Your task to perform on an android device: stop showing notifications on the lock screen Image 0: 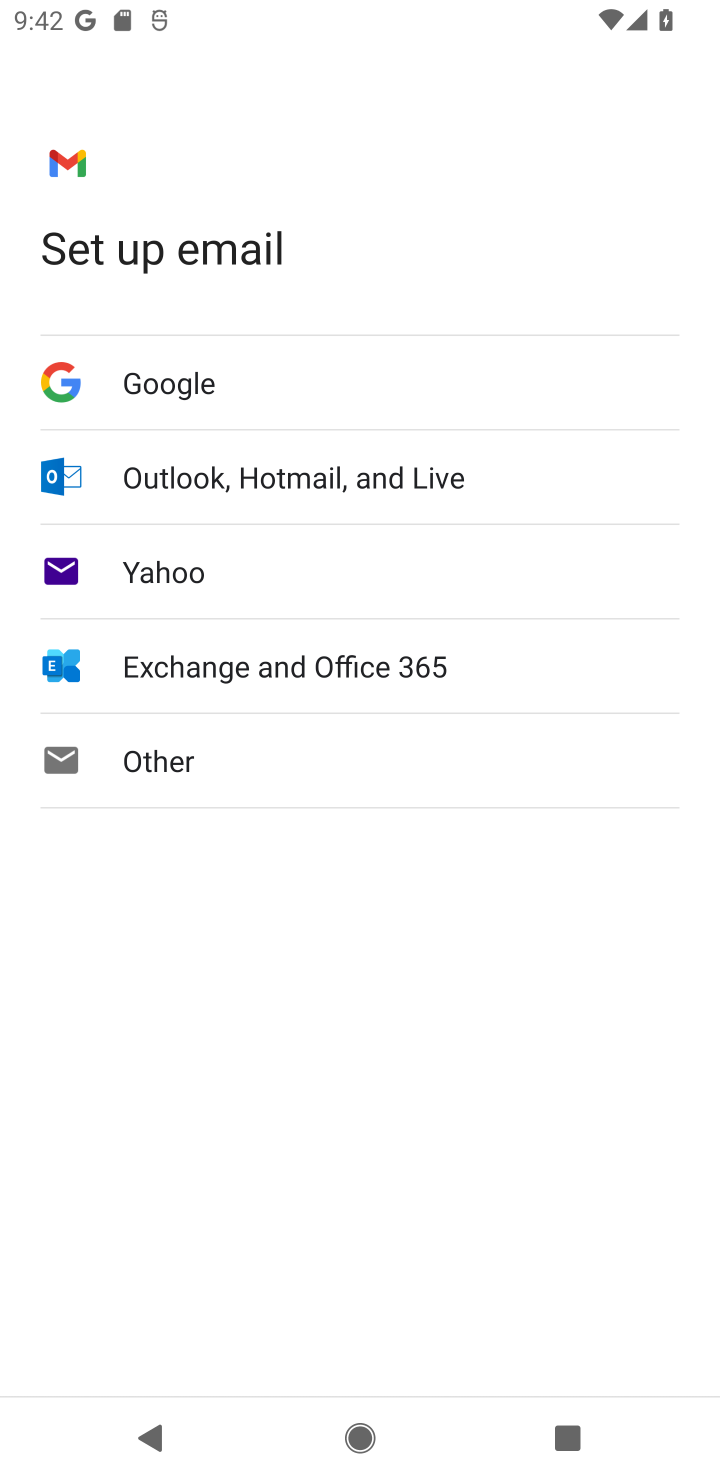
Step 0: press home button
Your task to perform on an android device: stop showing notifications on the lock screen Image 1: 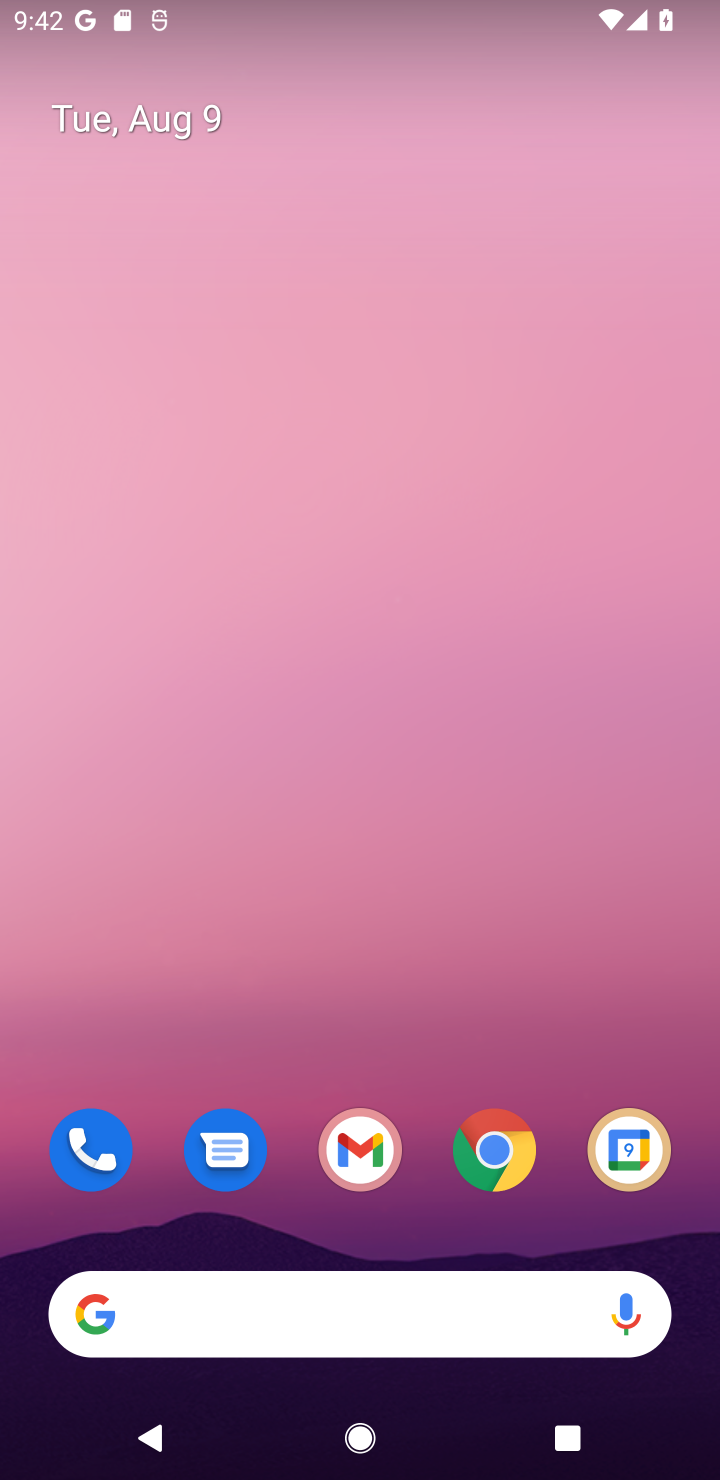
Step 1: drag from (369, 922) to (229, 411)
Your task to perform on an android device: stop showing notifications on the lock screen Image 2: 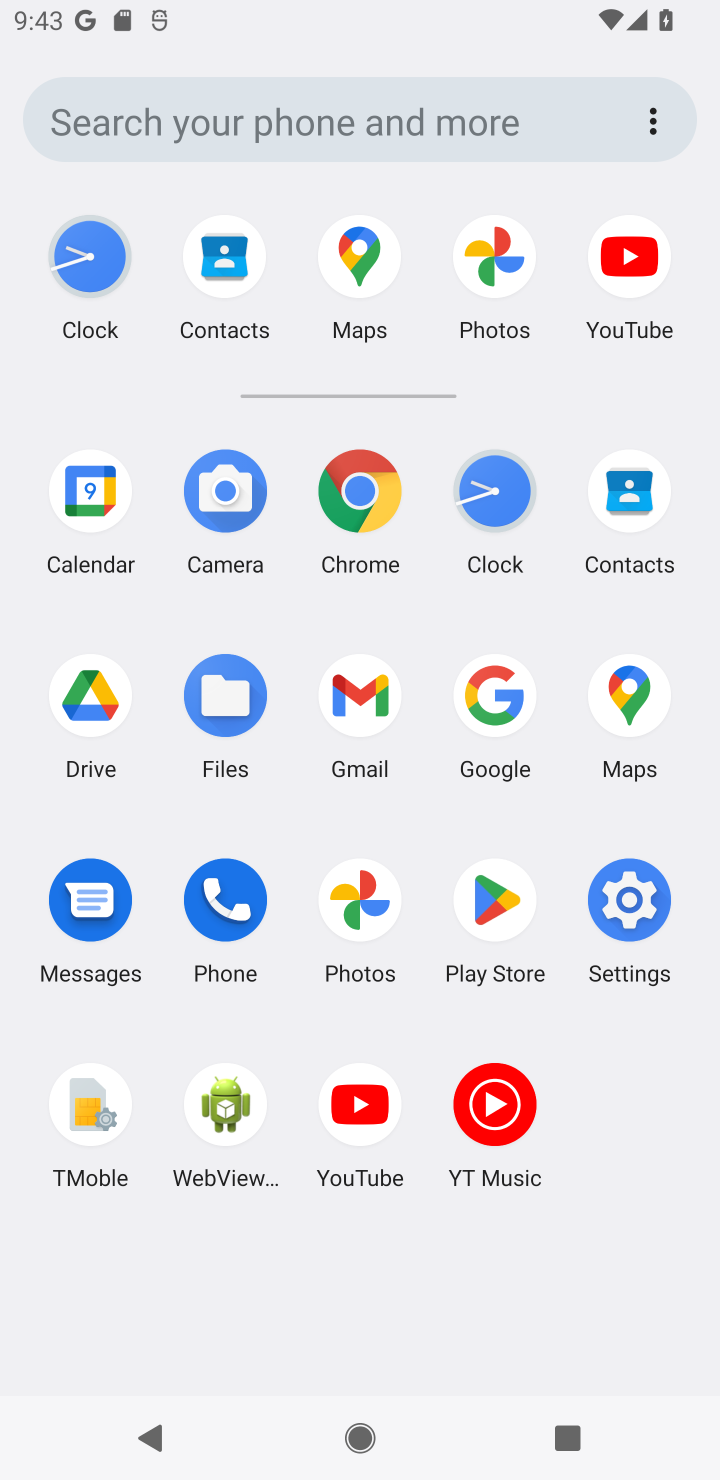
Step 2: click (630, 918)
Your task to perform on an android device: stop showing notifications on the lock screen Image 3: 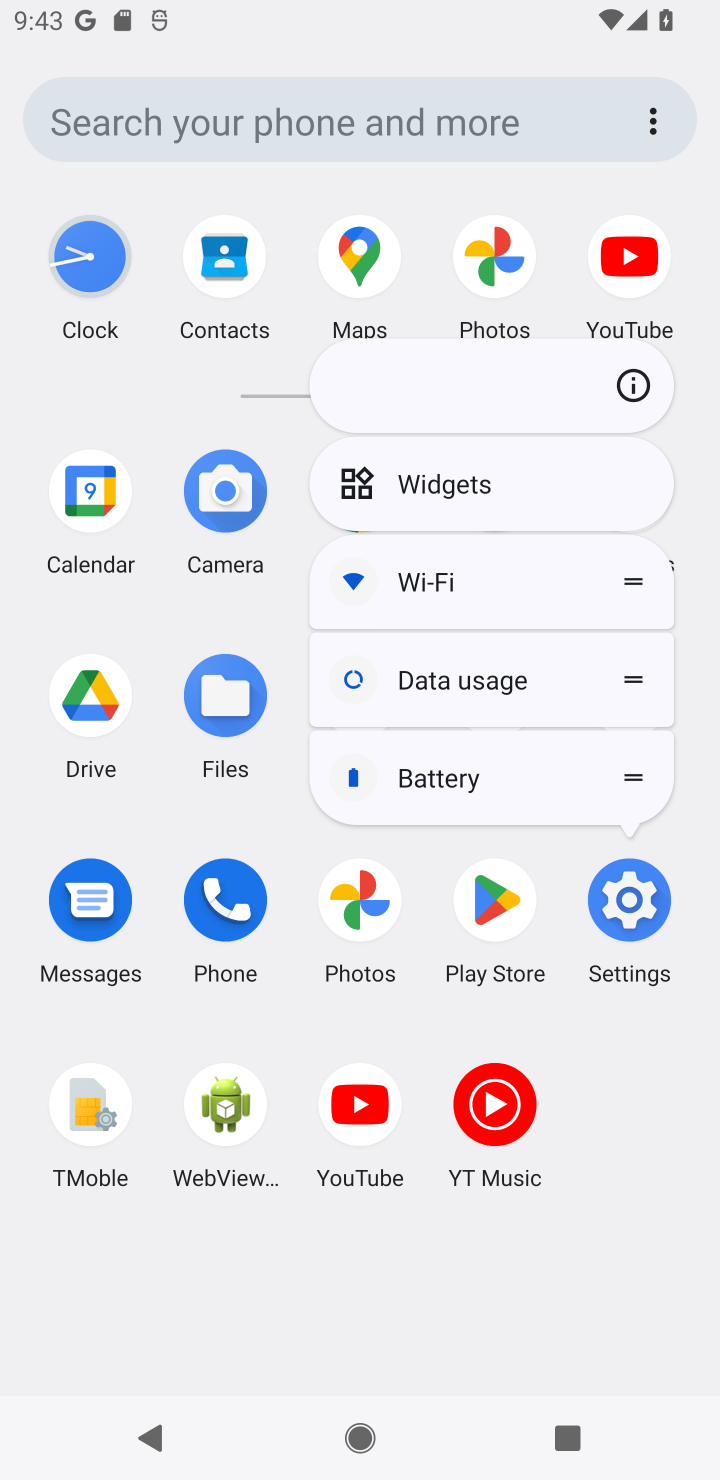
Step 3: click (616, 936)
Your task to perform on an android device: stop showing notifications on the lock screen Image 4: 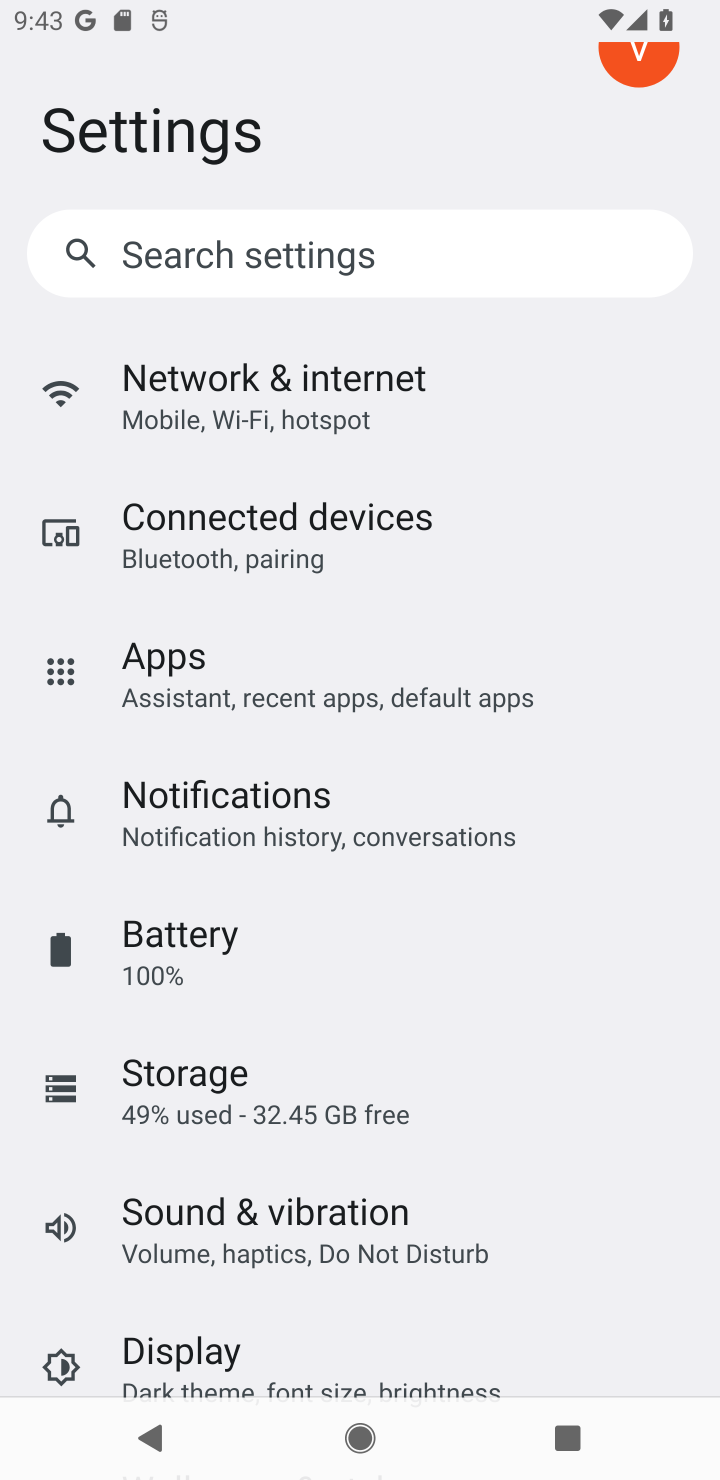
Step 4: click (273, 798)
Your task to perform on an android device: stop showing notifications on the lock screen Image 5: 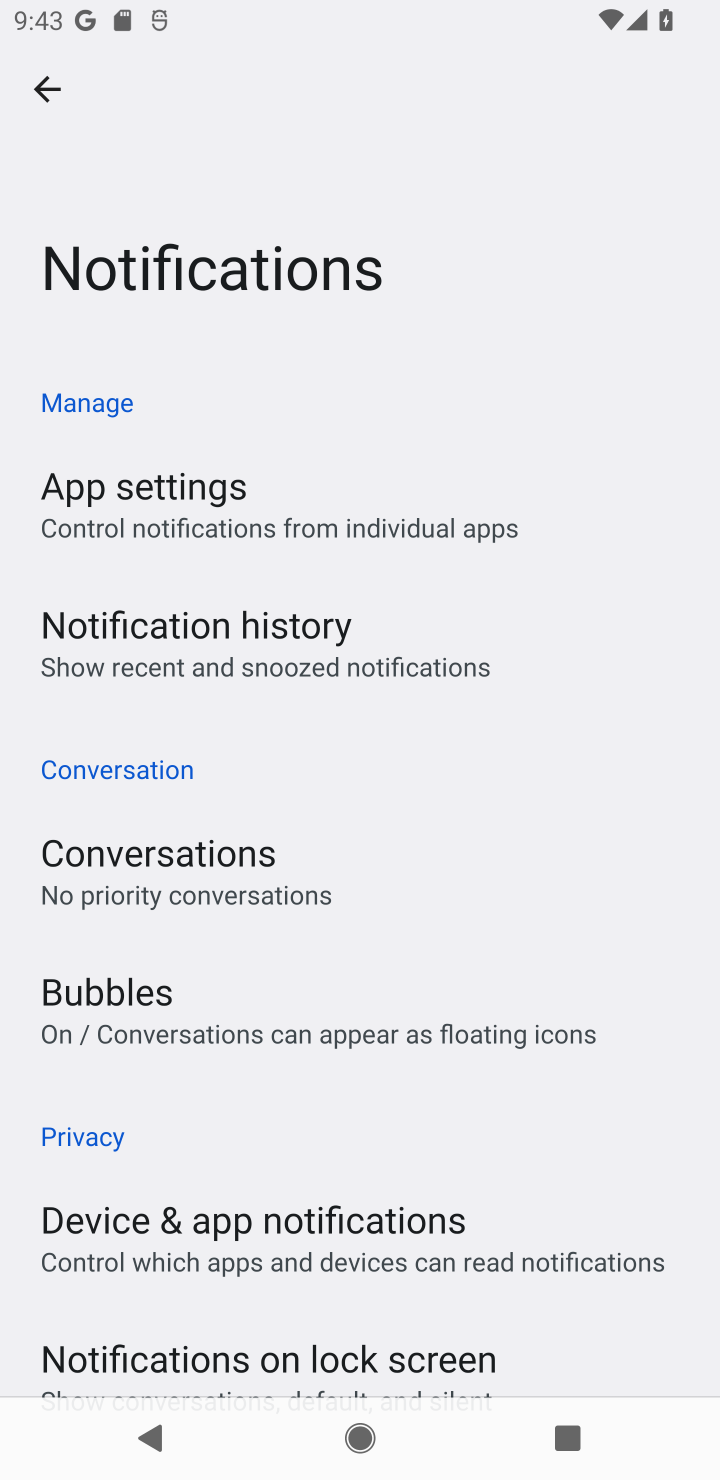
Step 5: drag from (273, 916) to (315, 618)
Your task to perform on an android device: stop showing notifications on the lock screen Image 6: 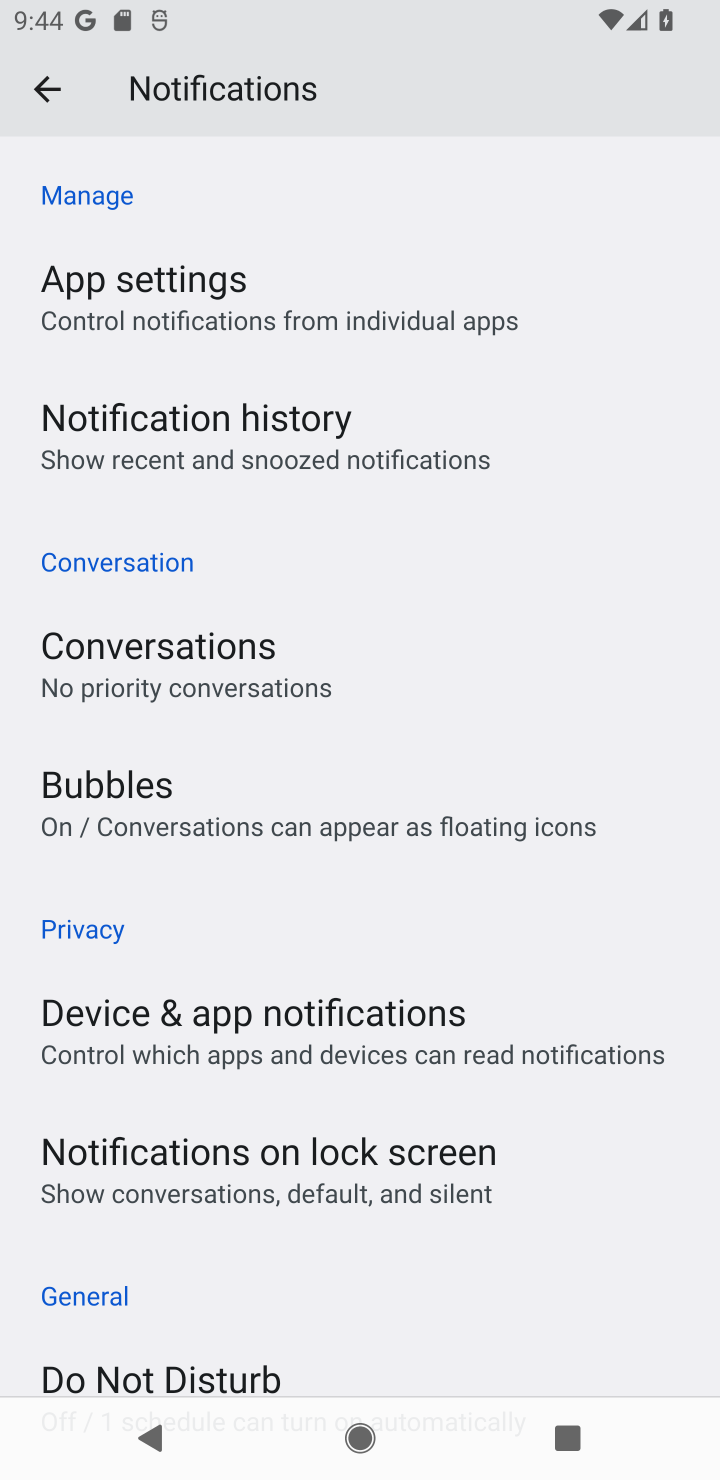
Step 6: click (300, 1185)
Your task to perform on an android device: stop showing notifications on the lock screen Image 7: 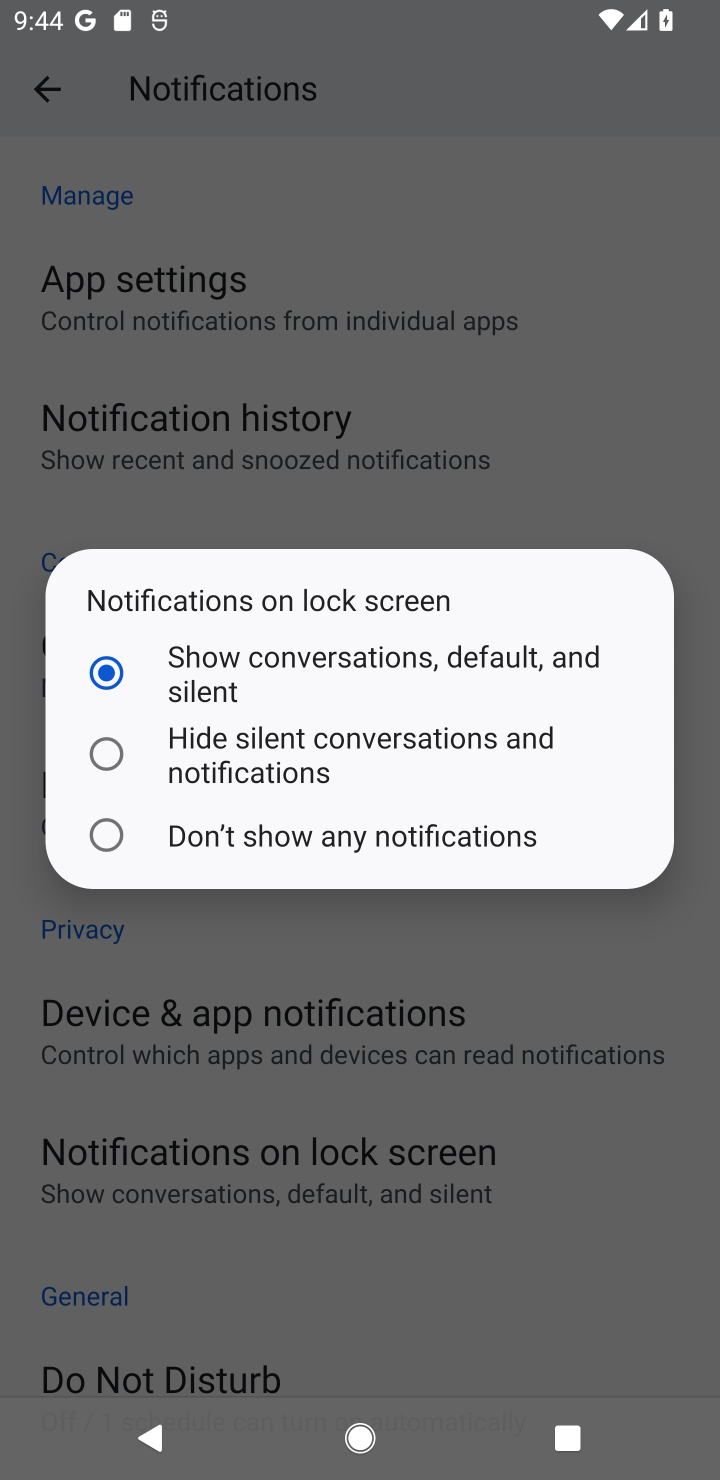
Step 7: click (206, 841)
Your task to perform on an android device: stop showing notifications on the lock screen Image 8: 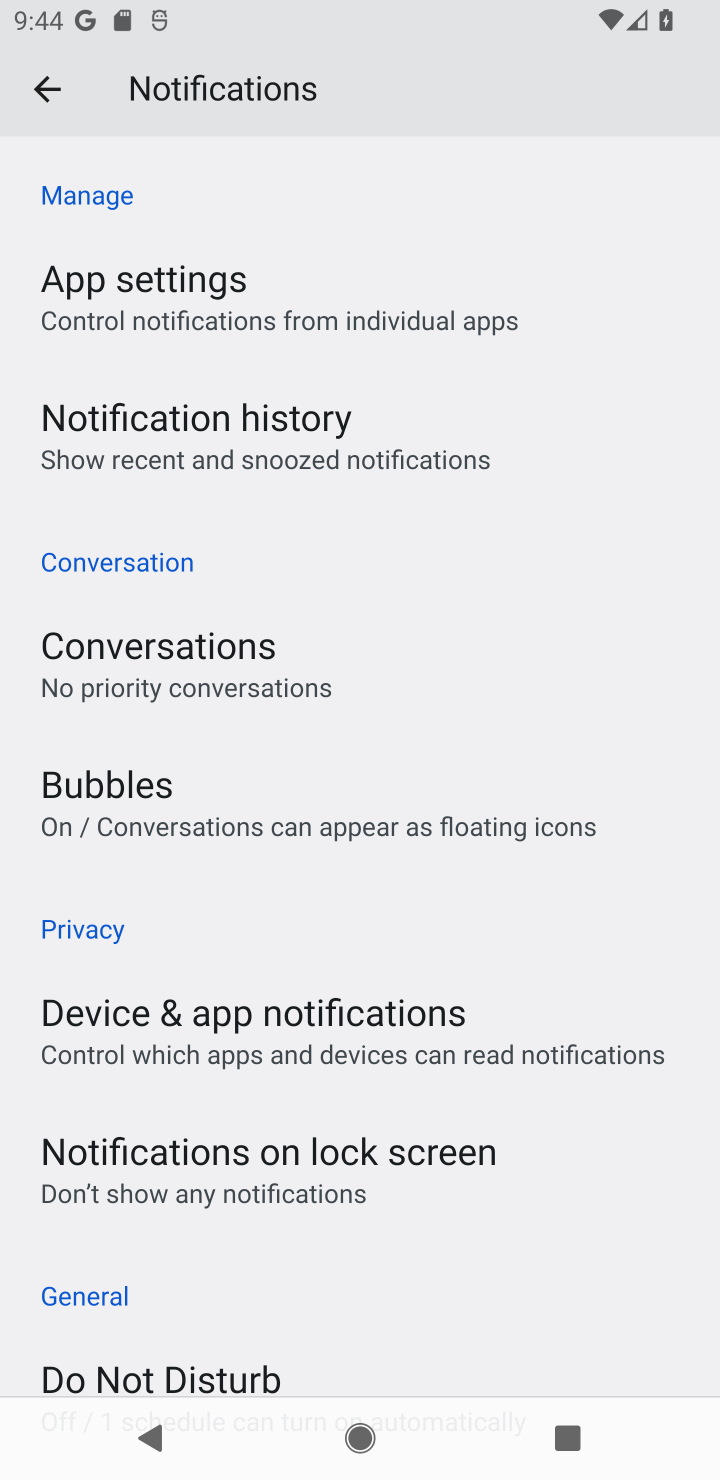
Step 8: task complete